Your task to perform on an android device: Open my contact list Image 0: 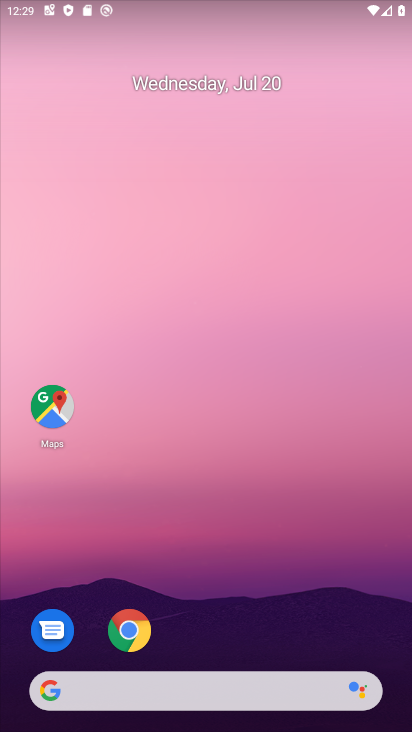
Step 0: press home button
Your task to perform on an android device: Open my contact list Image 1: 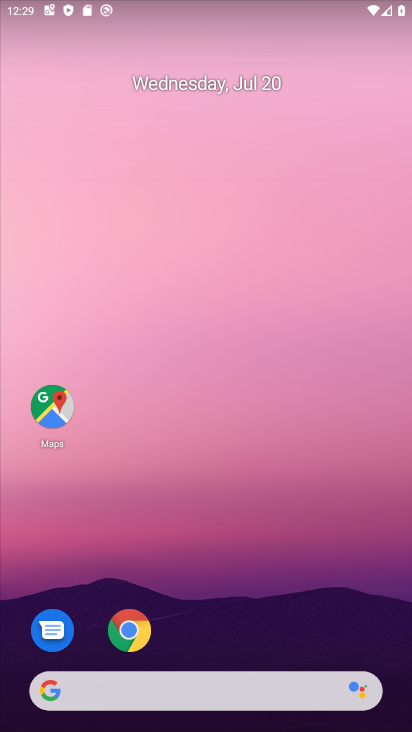
Step 1: drag from (270, 651) to (243, 267)
Your task to perform on an android device: Open my contact list Image 2: 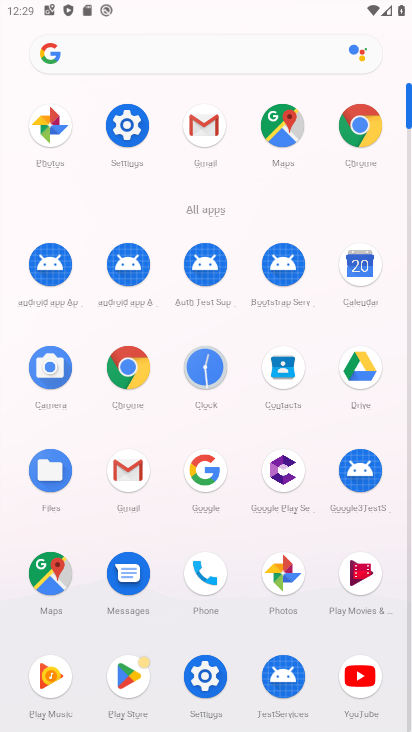
Step 2: click (281, 353)
Your task to perform on an android device: Open my contact list Image 3: 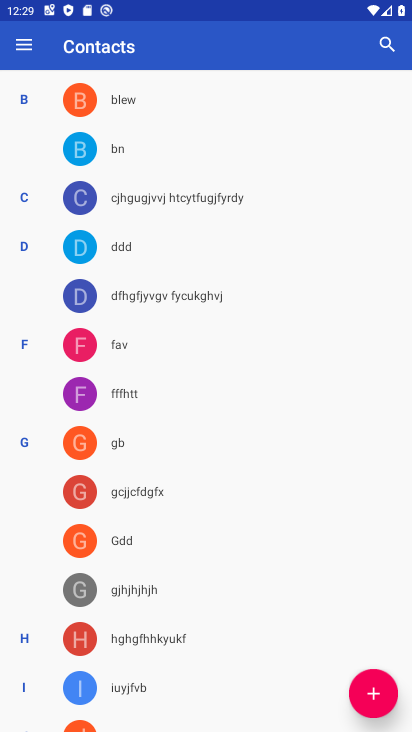
Step 3: task complete